Your task to perform on an android device: open wifi settings Image 0: 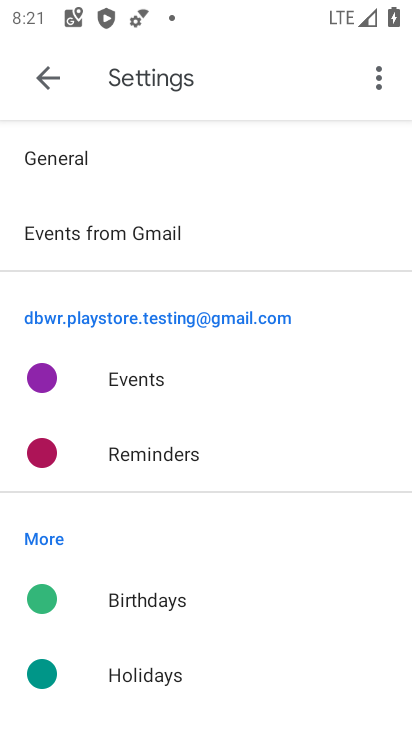
Step 0: press home button
Your task to perform on an android device: open wifi settings Image 1: 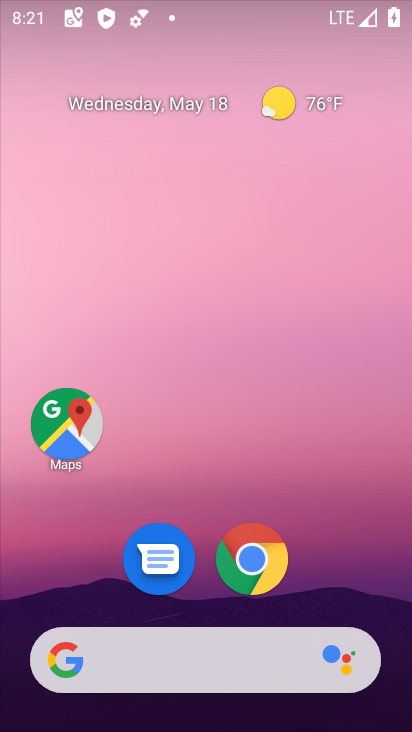
Step 1: drag from (201, 598) to (221, 14)
Your task to perform on an android device: open wifi settings Image 2: 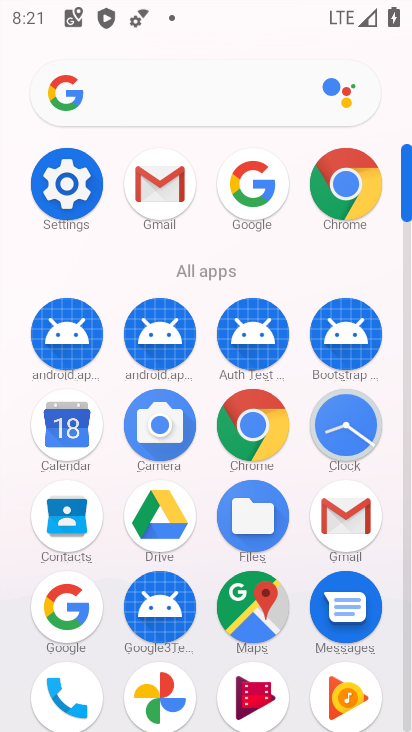
Step 2: click (71, 189)
Your task to perform on an android device: open wifi settings Image 3: 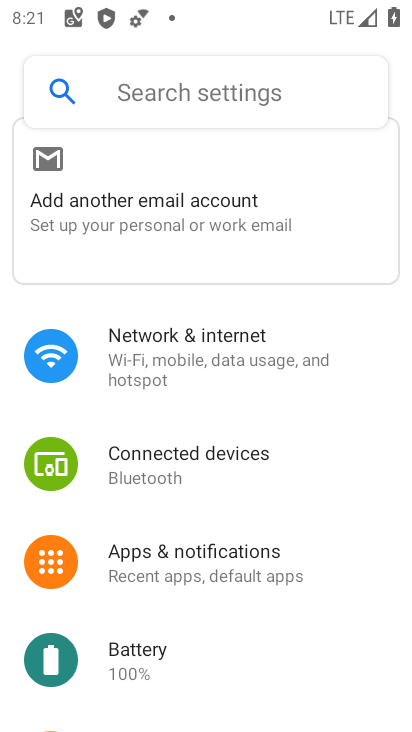
Step 3: click (167, 335)
Your task to perform on an android device: open wifi settings Image 4: 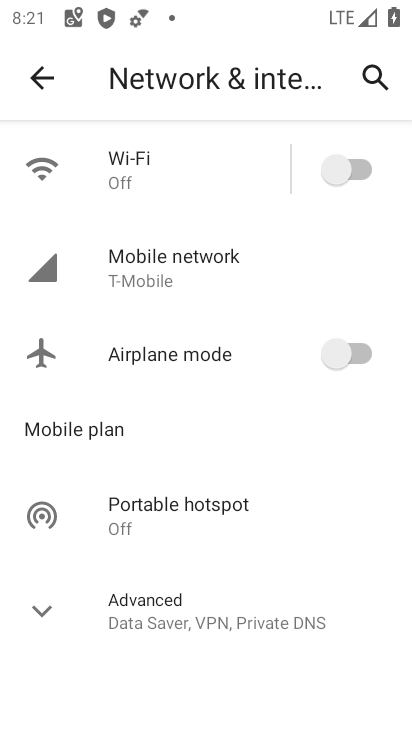
Step 4: click (214, 165)
Your task to perform on an android device: open wifi settings Image 5: 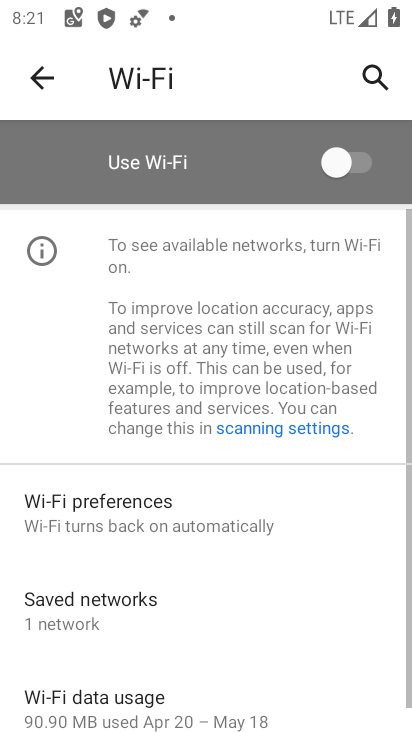
Step 5: click (320, 164)
Your task to perform on an android device: open wifi settings Image 6: 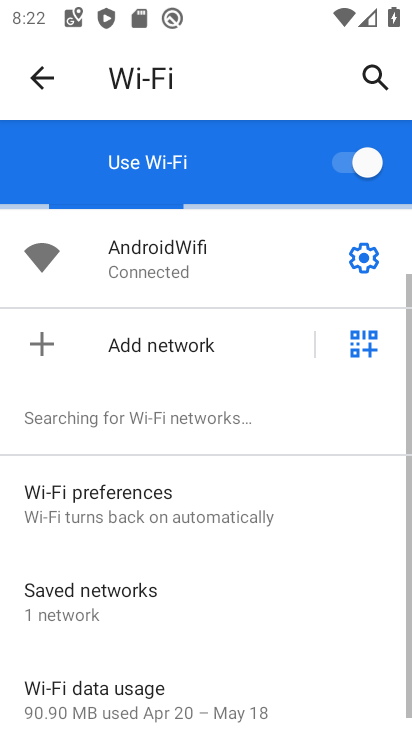
Step 6: click (350, 255)
Your task to perform on an android device: open wifi settings Image 7: 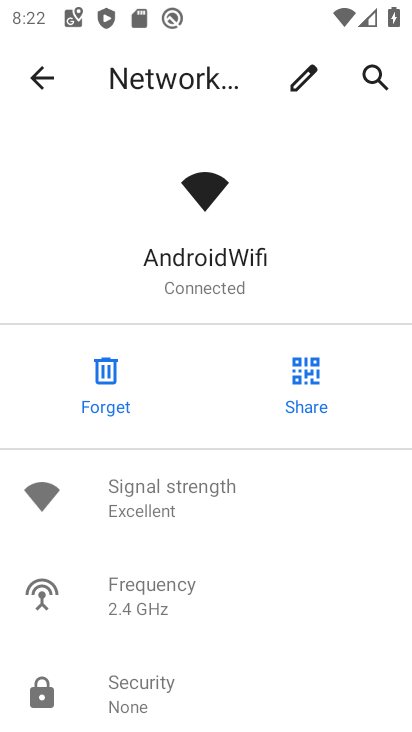
Step 7: task complete